Your task to perform on an android device: Open privacy settings Image 0: 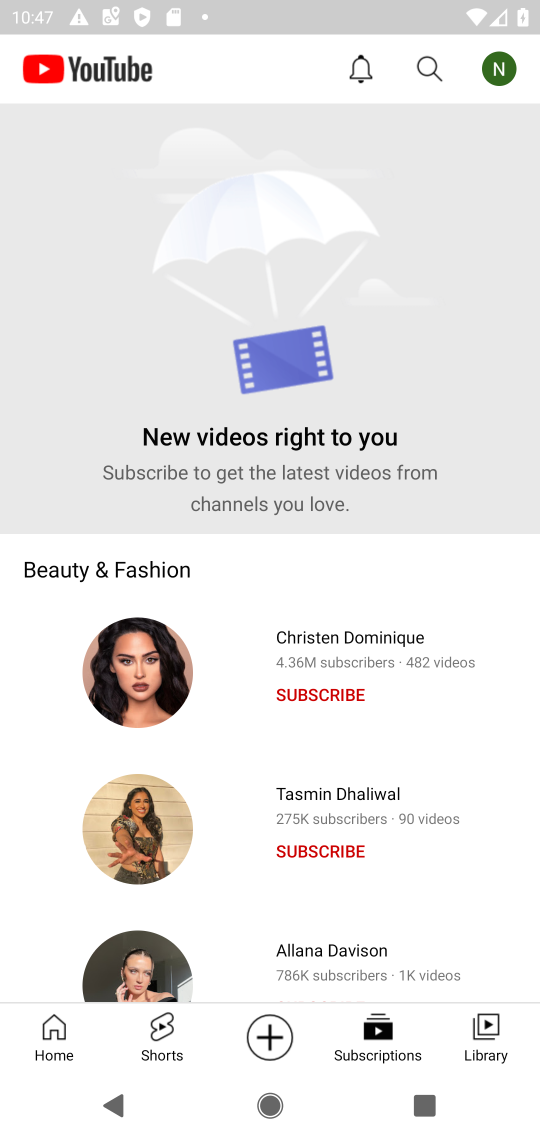
Step 0: press home button
Your task to perform on an android device: Open privacy settings Image 1: 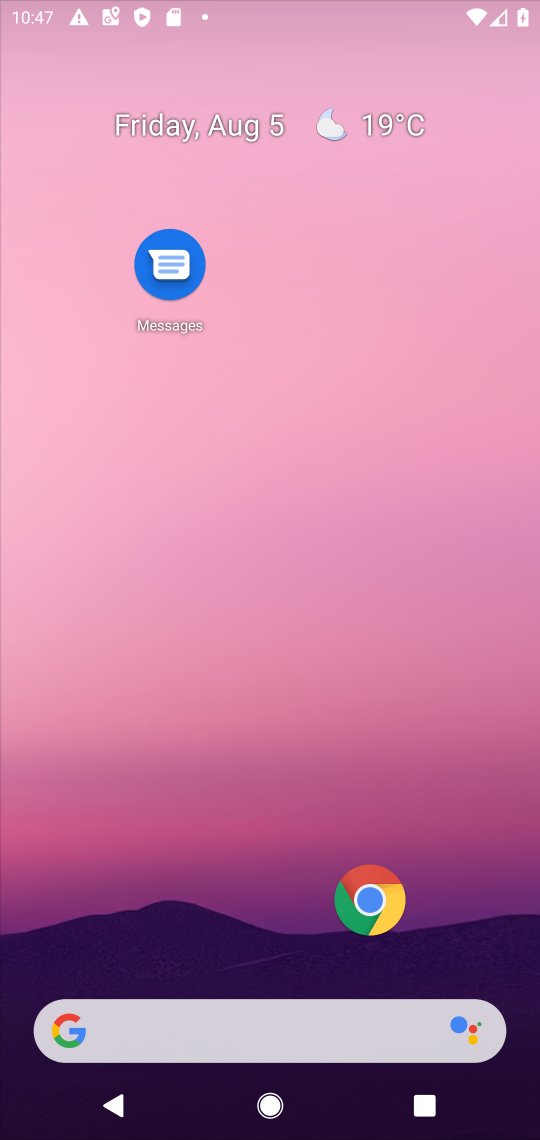
Step 1: drag from (243, 999) to (197, 7)
Your task to perform on an android device: Open privacy settings Image 2: 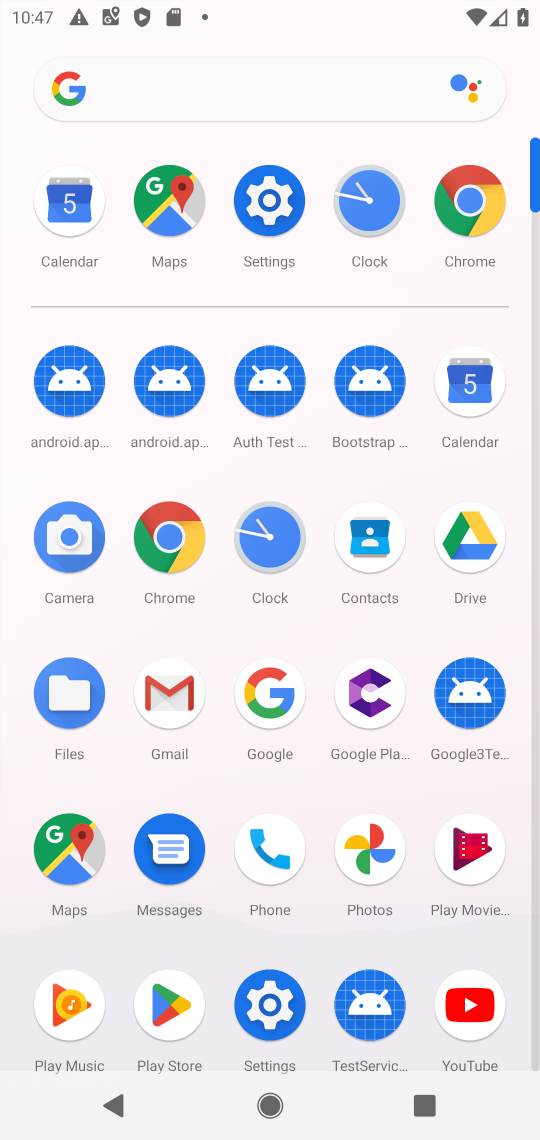
Step 2: click (287, 195)
Your task to perform on an android device: Open privacy settings Image 3: 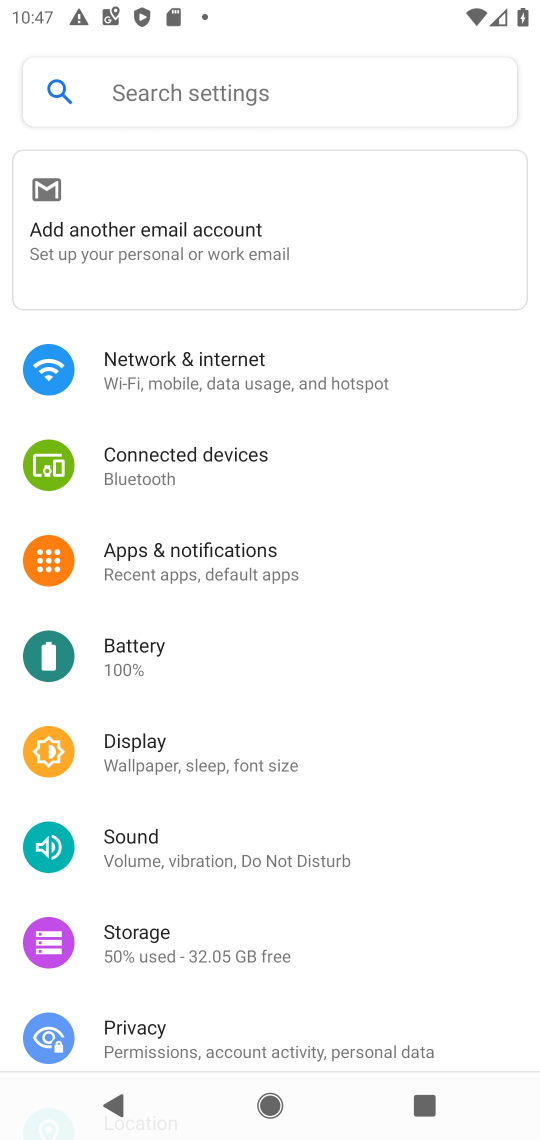
Step 3: drag from (337, 983) to (316, 495)
Your task to perform on an android device: Open privacy settings Image 4: 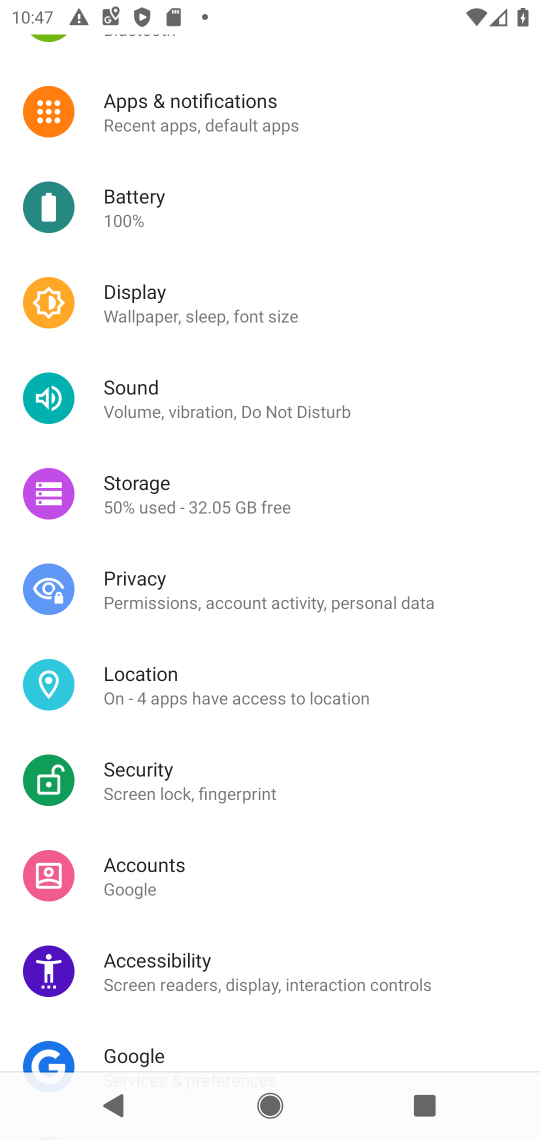
Step 4: click (129, 583)
Your task to perform on an android device: Open privacy settings Image 5: 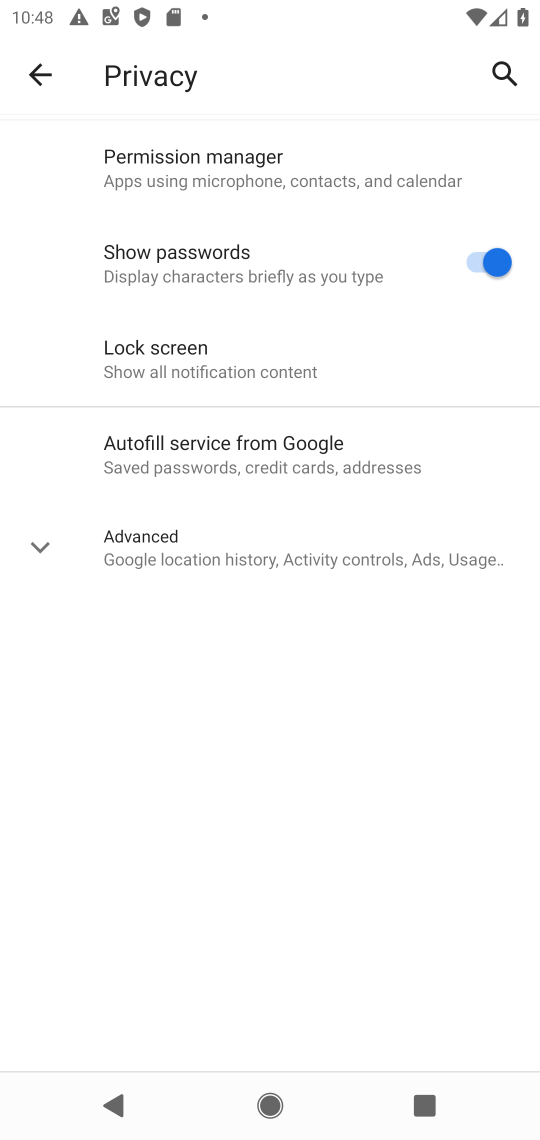
Step 5: task complete